Your task to perform on an android device: open device folders in google photos Image 0: 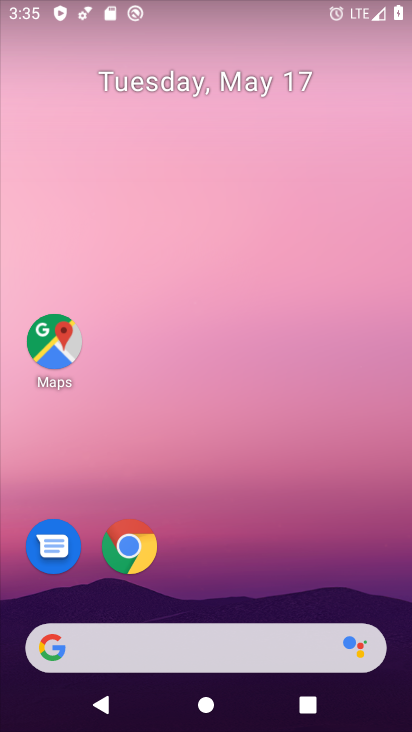
Step 0: drag from (311, 555) to (314, 47)
Your task to perform on an android device: open device folders in google photos Image 1: 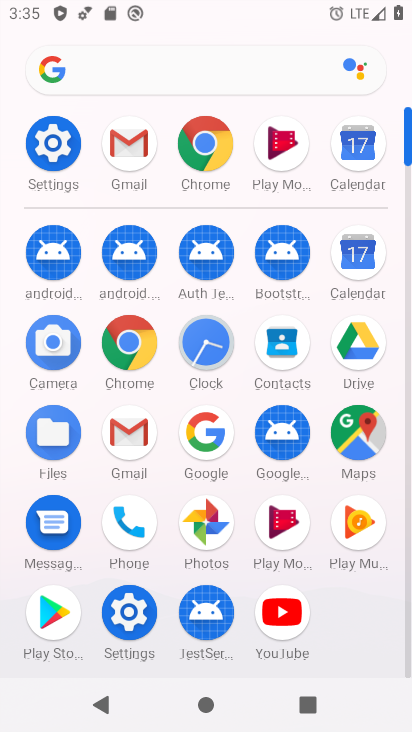
Step 1: click (212, 512)
Your task to perform on an android device: open device folders in google photos Image 2: 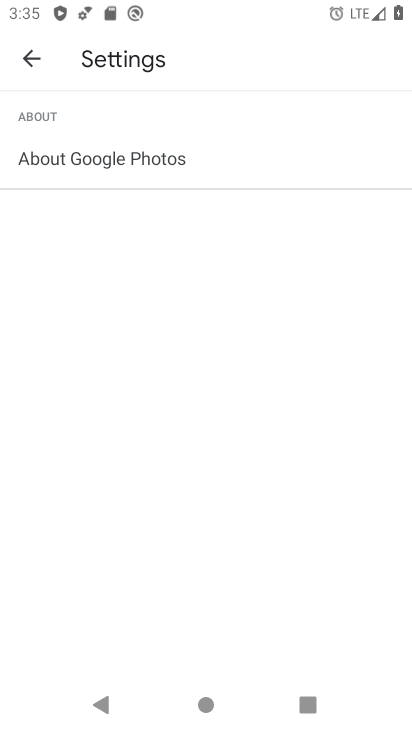
Step 2: click (37, 67)
Your task to perform on an android device: open device folders in google photos Image 3: 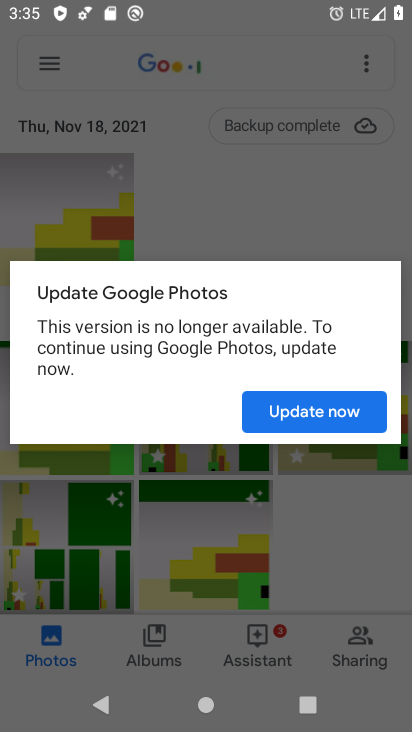
Step 3: click (260, 415)
Your task to perform on an android device: open device folders in google photos Image 4: 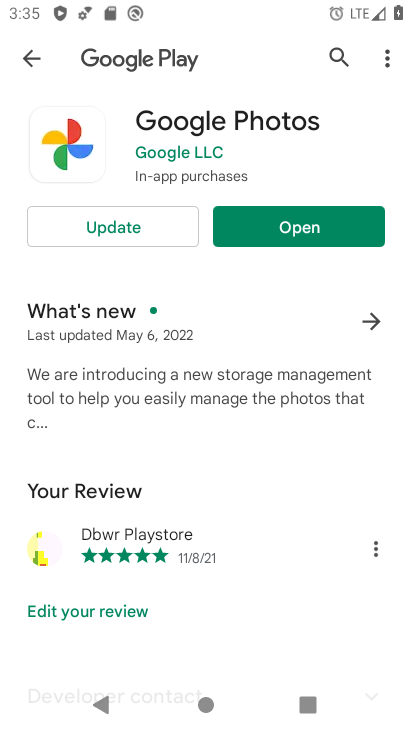
Step 4: click (80, 217)
Your task to perform on an android device: open device folders in google photos Image 5: 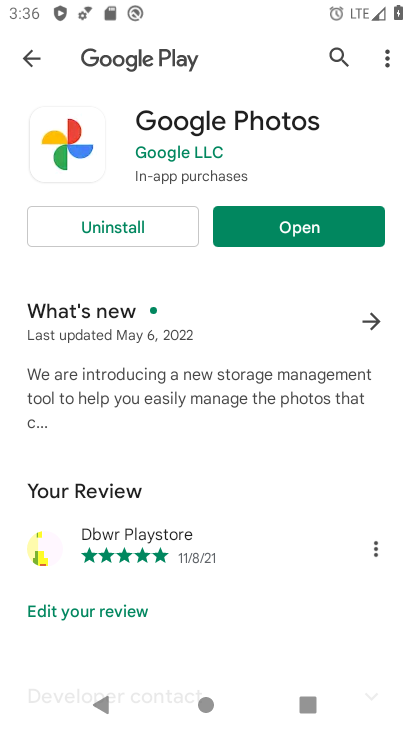
Step 5: click (317, 228)
Your task to perform on an android device: open device folders in google photos Image 6: 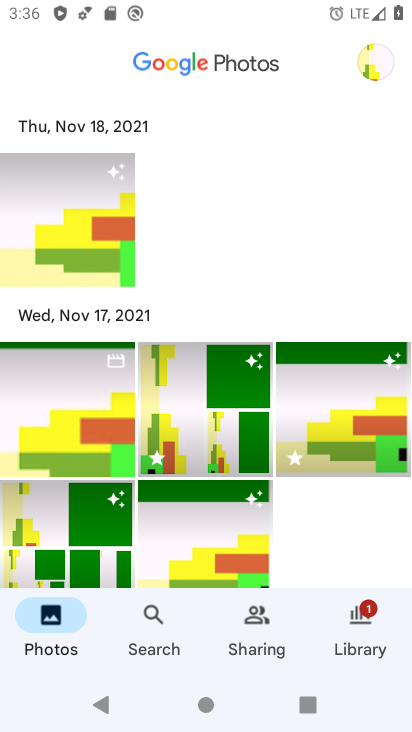
Step 6: task complete